Your task to perform on an android device: Open my contact list Image 0: 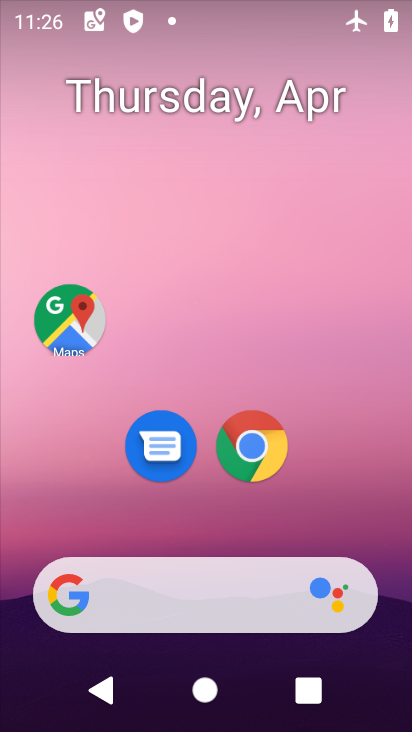
Step 0: drag from (367, 501) to (334, 141)
Your task to perform on an android device: Open my contact list Image 1: 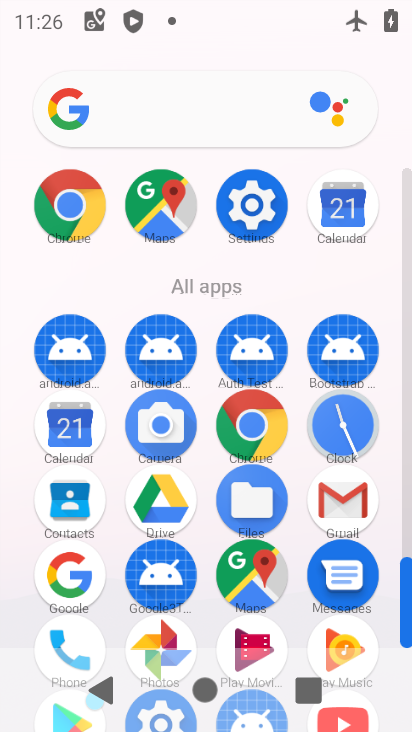
Step 1: click (70, 496)
Your task to perform on an android device: Open my contact list Image 2: 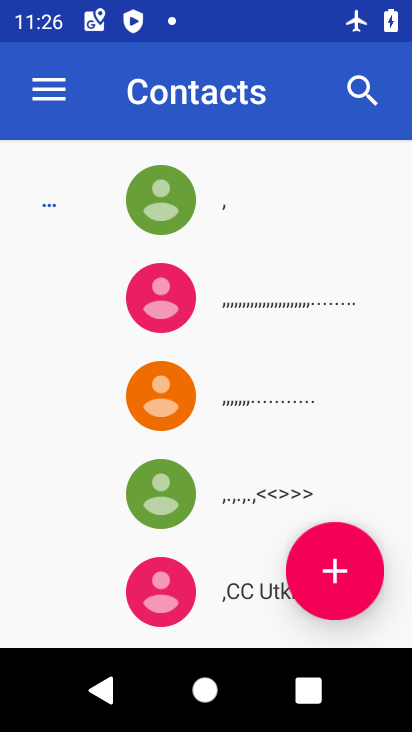
Step 2: task complete